Your task to perform on an android device: set an alarm Image 0: 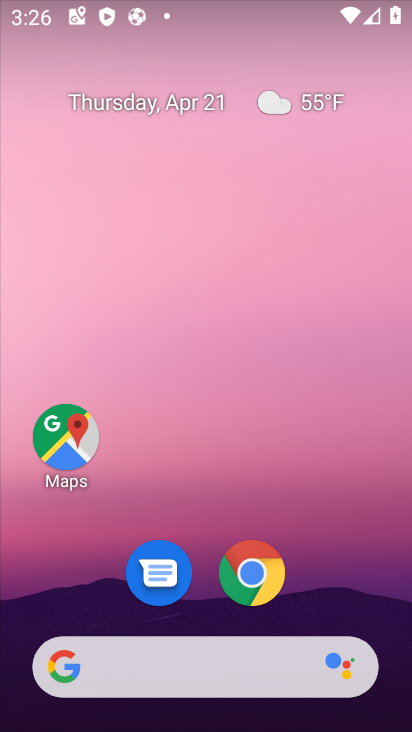
Step 0: drag from (382, 607) to (332, 111)
Your task to perform on an android device: set an alarm Image 1: 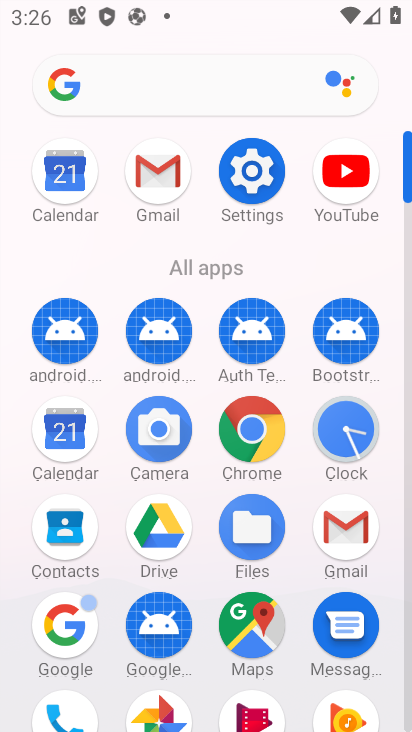
Step 1: click (407, 706)
Your task to perform on an android device: set an alarm Image 2: 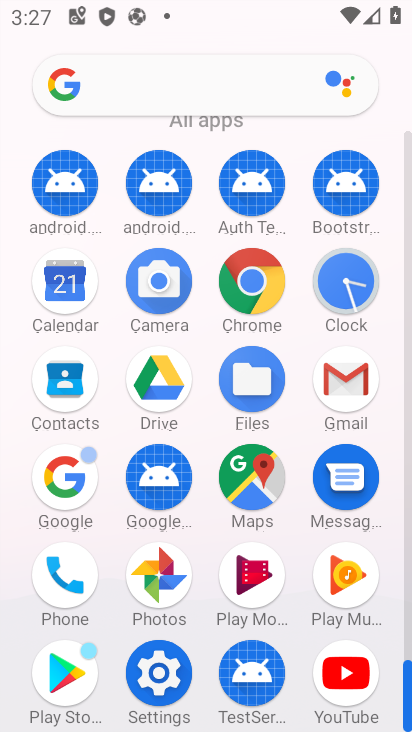
Step 2: click (342, 279)
Your task to perform on an android device: set an alarm Image 3: 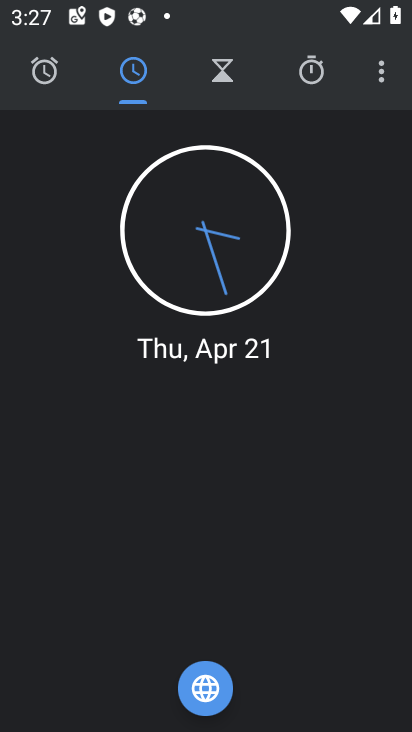
Step 3: click (44, 75)
Your task to perform on an android device: set an alarm Image 4: 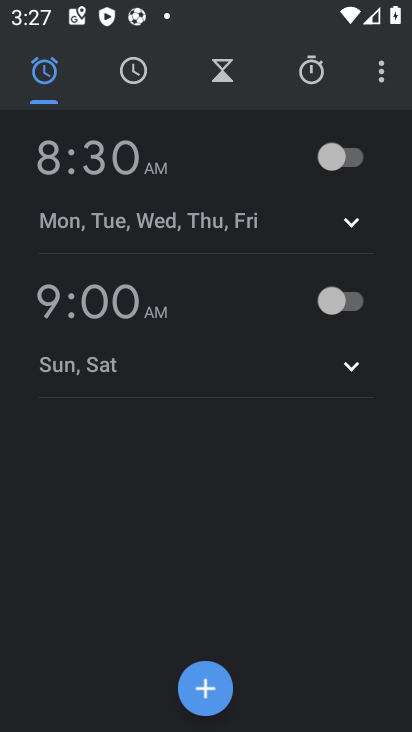
Step 4: click (55, 166)
Your task to perform on an android device: set an alarm Image 5: 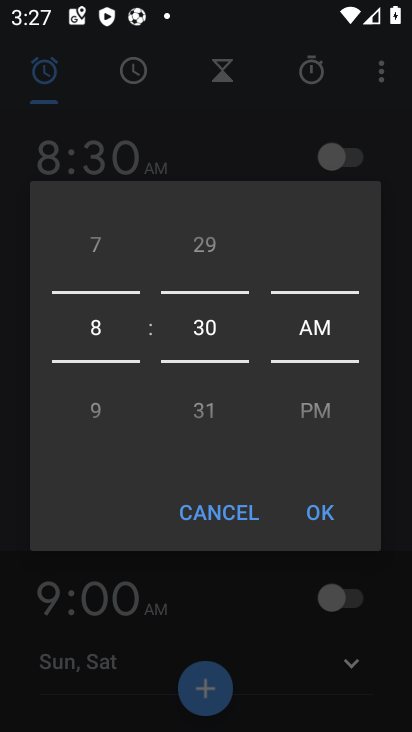
Step 5: drag from (105, 269) to (93, 459)
Your task to perform on an android device: set an alarm Image 6: 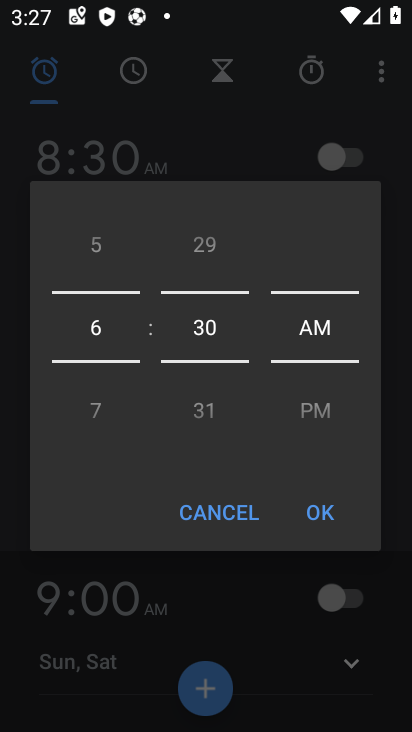
Step 6: click (318, 512)
Your task to perform on an android device: set an alarm Image 7: 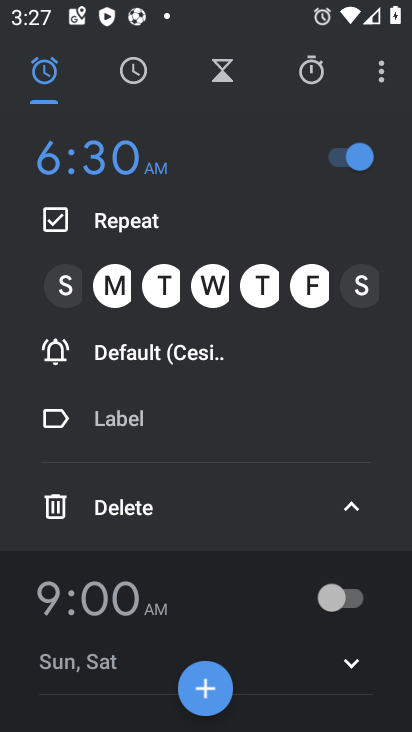
Step 7: click (362, 280)
Your task to perform on an android device: set an alarm Image 8: 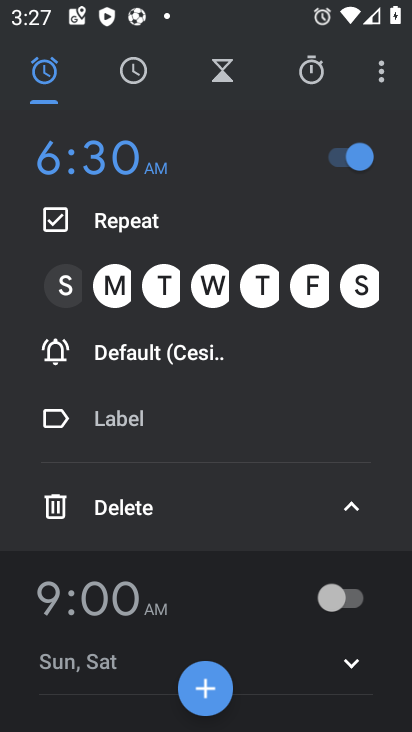
Step 8: click (116, 347)
Your task to perform on an android device: set an alarm Image 9: 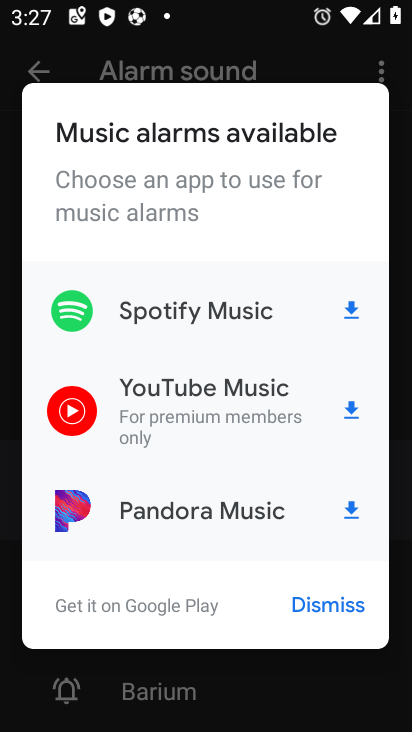
Step 9: click (321, 606)
Your task to perform on an android device: set an alarm Image 10: 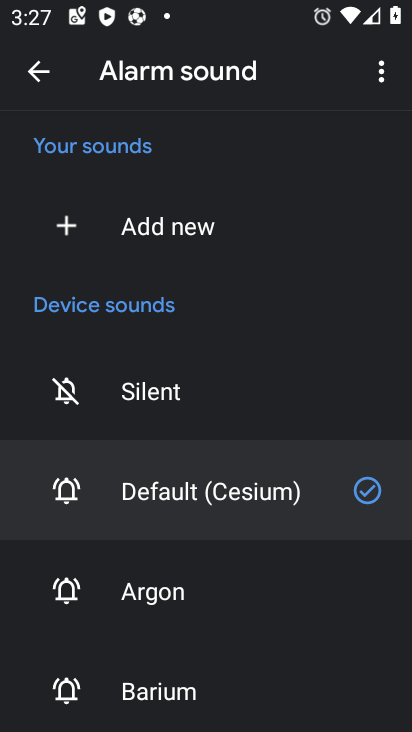
Step 10: drag from (232, 620) to (280, 220)
Your task to perform on an android device: set an alarm Image 11: 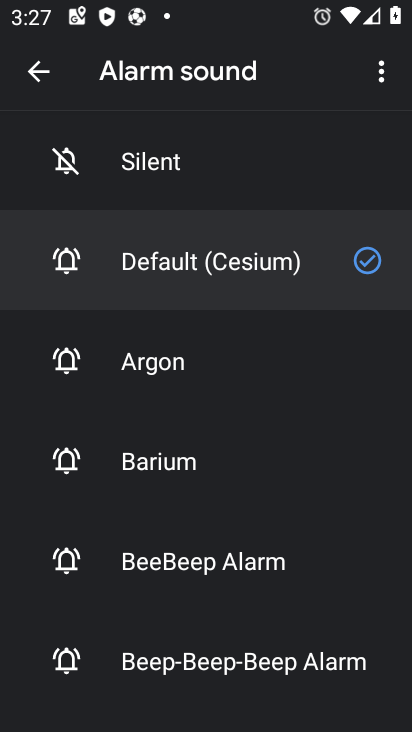
Step 11: click (157, 553)
Your task to perform on an android device: set an alarm Image 12: 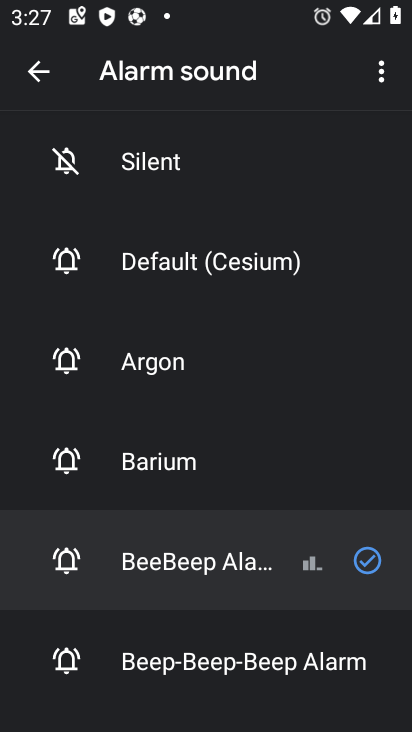
Step 12: press back button
Your task to perform on an android device: set an alarm Image 13: 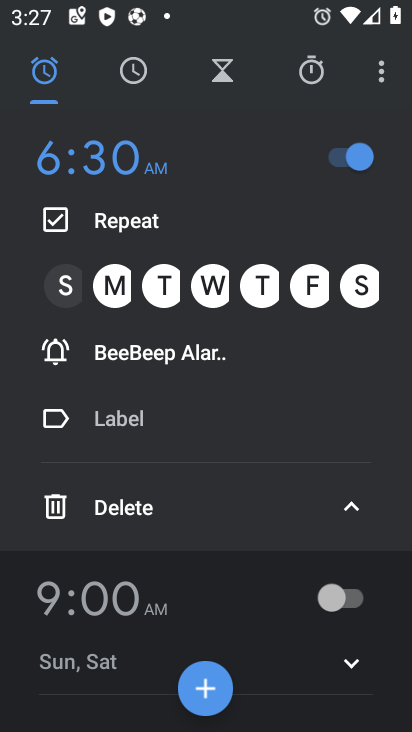
Step 13: click (349, 506)
Your task to perform on an android device: set an alarm Image 14: 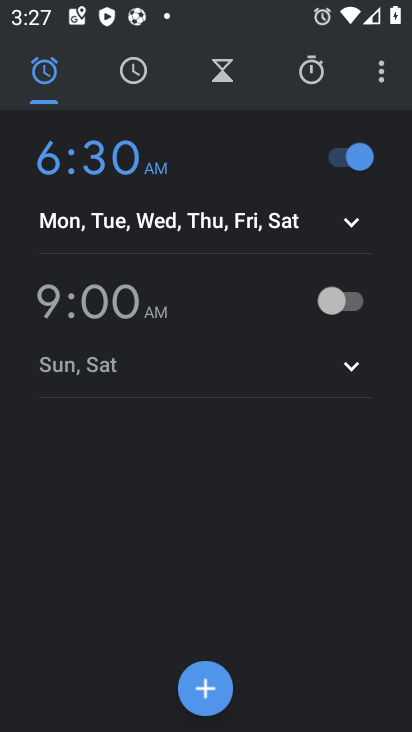
Step 14: task complete